Your task to perform on an android device: add a contact in the contacts app Image 0: 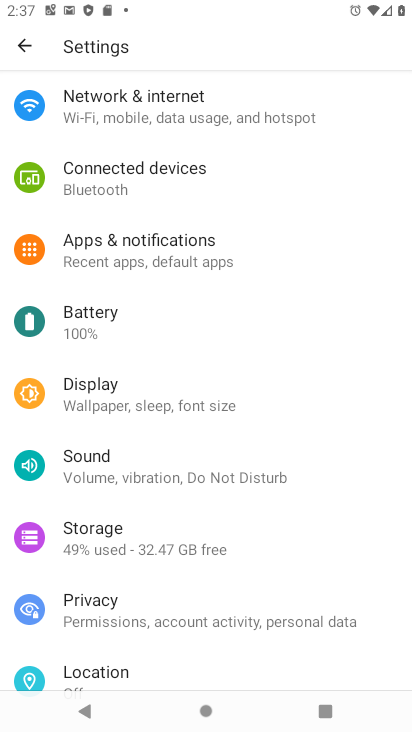
Step 0: press home button
Your task to perform on an android device: add a contact in the contacts app Image 1: 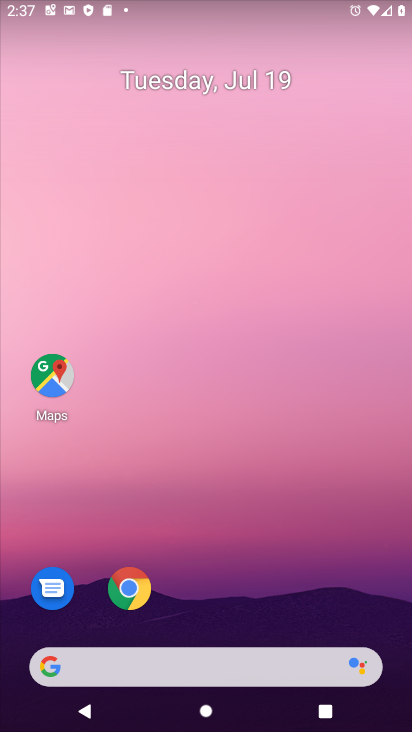
Step 1: drag from (356, 605) to (245, 49)
Your task to perform on an android device: add a contact in the contacts app Image 2: 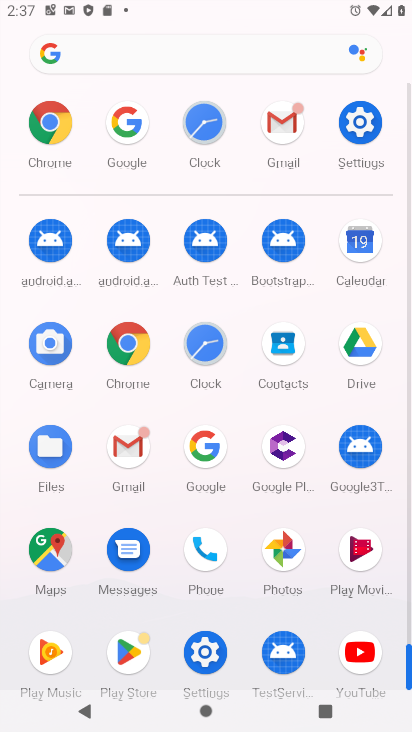
Step 2: click (277, 346)
Your task to perform on an android device: add a contact in the contacts app Image 3: 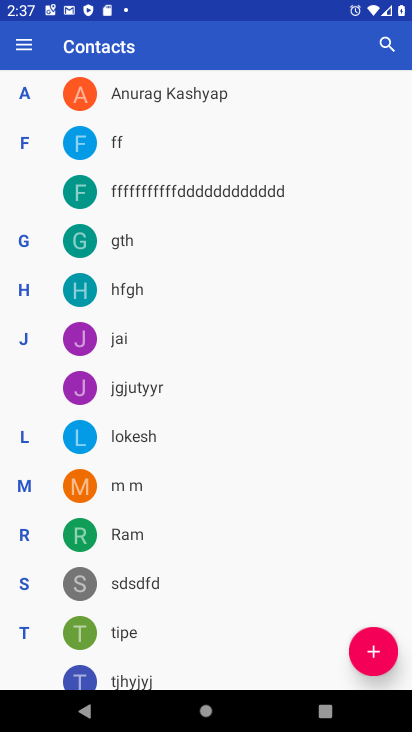
Step 3: click (368, 654)
Your task to perform on an android device: add a contact in the contacts app Image 4: 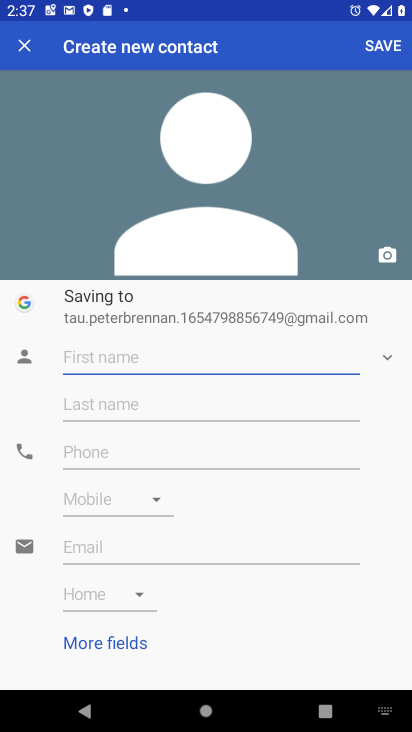
Step 4: type "shyam"
Your task to perform on an android device: add a contact in the contacts app Image 5: 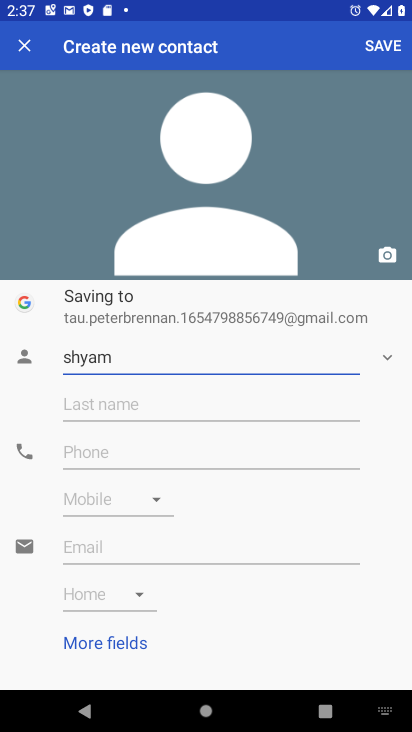
Step 5: click (378, 52)
Your task to perform on an android device: add a contact in the contacts app Image 6: 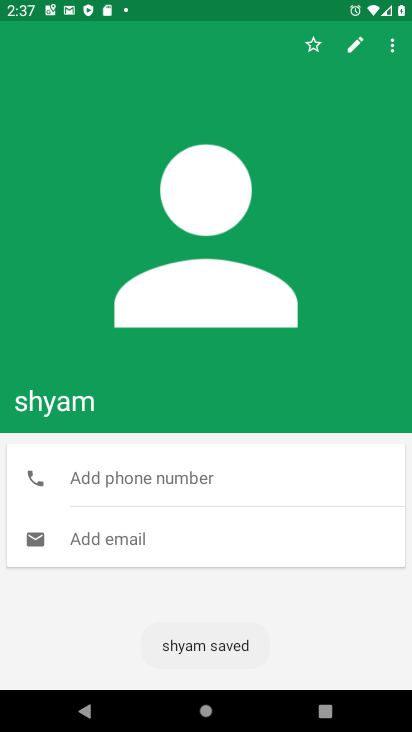
Step 6: task complete